Your task to perform on an android device: turn on javascript in the chrome app Image 0: 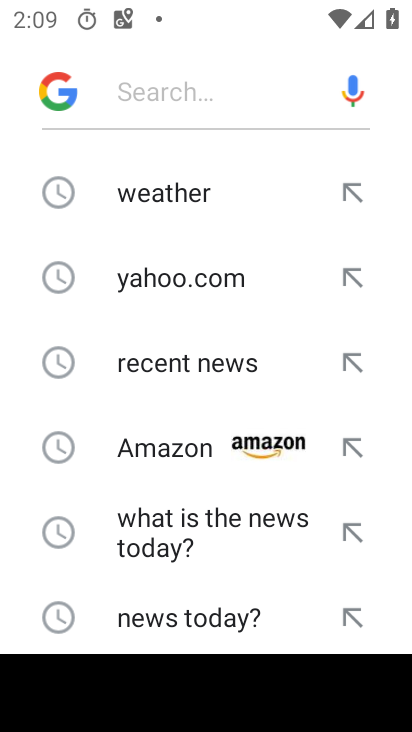
Step 0: press home button
Your task to perform on an android device: turn on javascript in the chrome app Image 1: 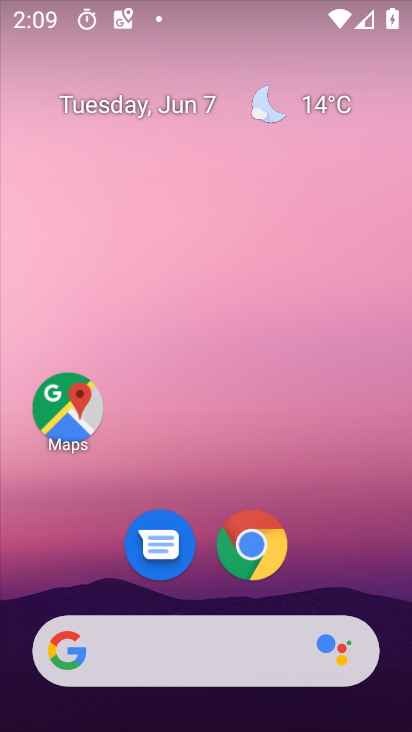
Step 1: click (277, 547)
Your task to perform on an android device: turn on javascript in the chrome app Image 2: 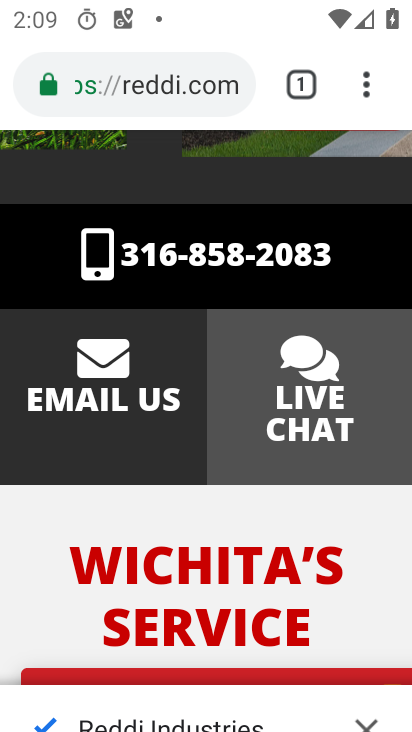
Step 2: click (368, 91)
Your task to perform on an android device: turn on javascript in the chrome app Image 3: 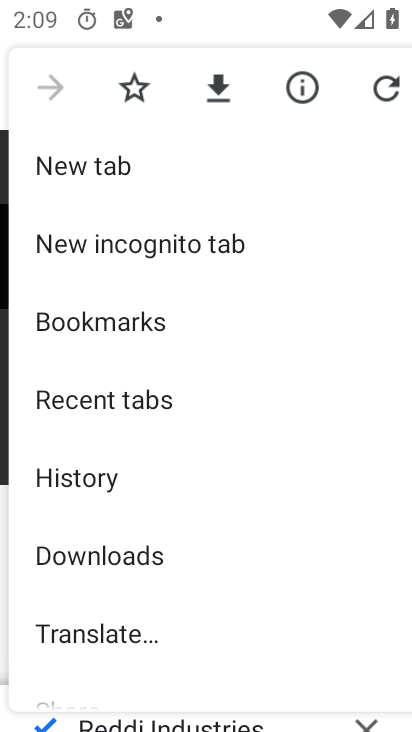
Step 3: drag from (295, 609) to (319, 101)
Your task to perform on an android device: turn on javascript in the chrome app Image 4: 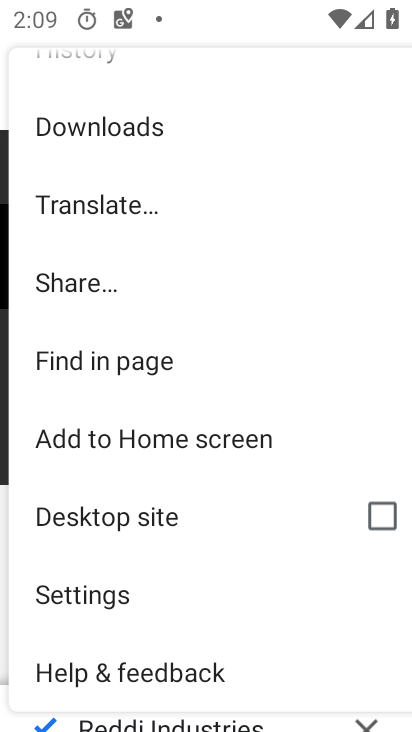
Step 4: click (160, 596)
Your task to perform on an android device: turn on javascript in the chrome app Image 5: 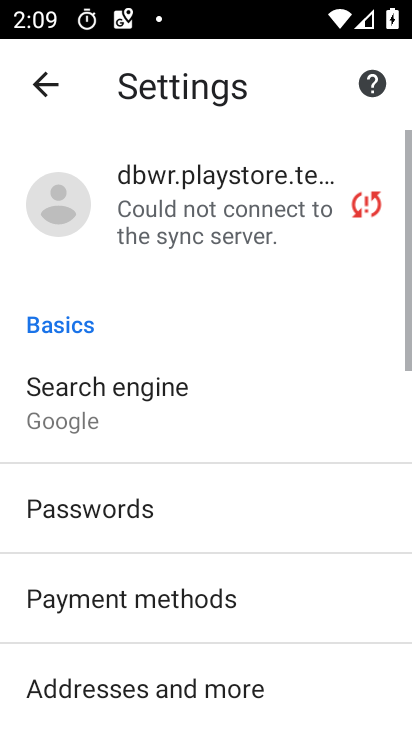
Step 5: drag from (259, 557) to (267, 61)
Your task to perform on an android device: turn on javascript in the chrome app Image 6: 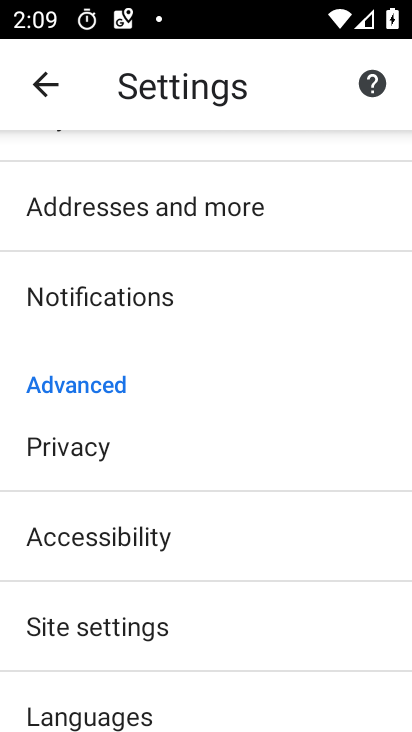
Step 6: click (173, 630)
Your task to perform on an android device: turn on javascript in the chrome app Image 7: 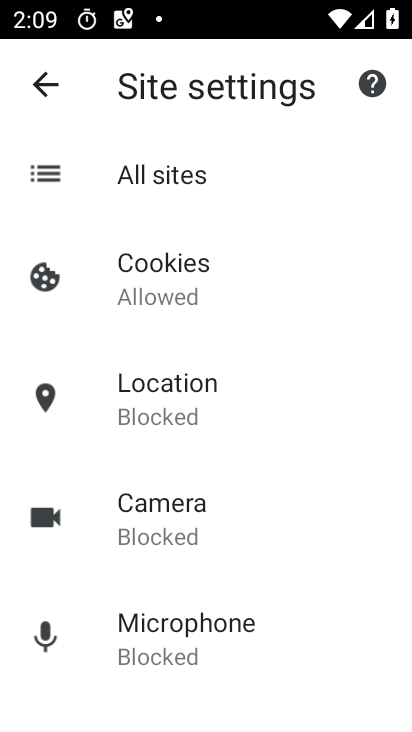
Step 7: drag from (298, 610) to (309, 118)
Your task to perform on an android device: turn on javascript in the chrome app Image 8: 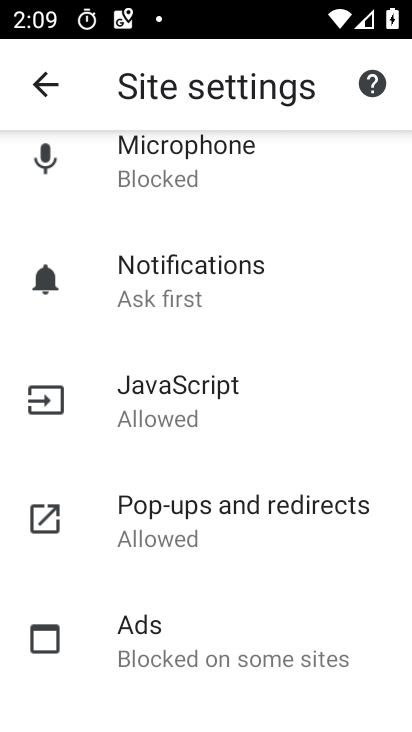
Step 8: click (211, 392)
Your task to perform on an android device: turn on javascript in the chrome app Image 9: 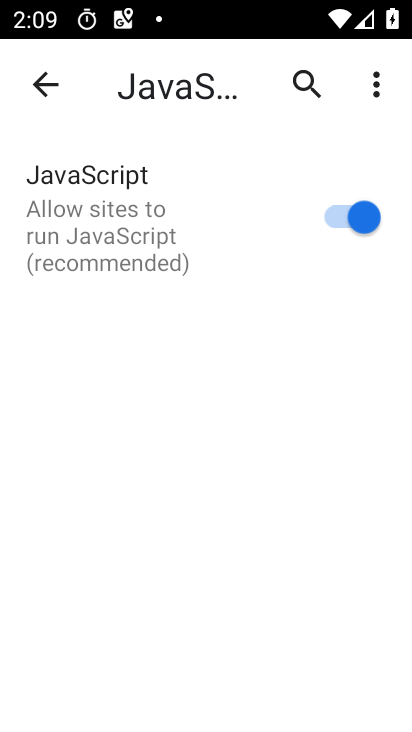
Step 9: task complete